Your task to perform on an android device: Open the web browser Image 0: 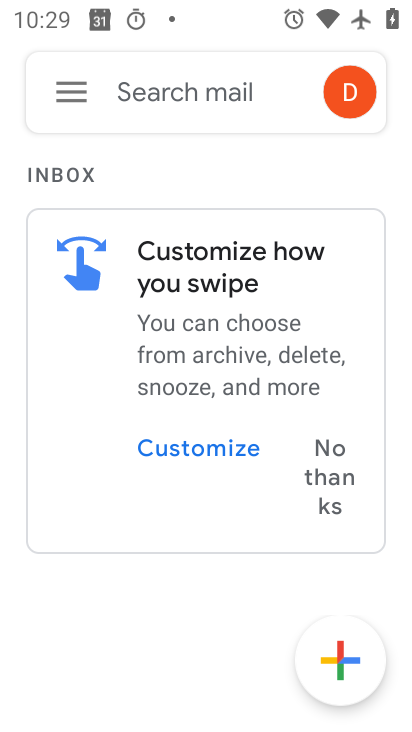
Step 0: press home button
Your task to perform on an android device: Open the web browser Image 1: 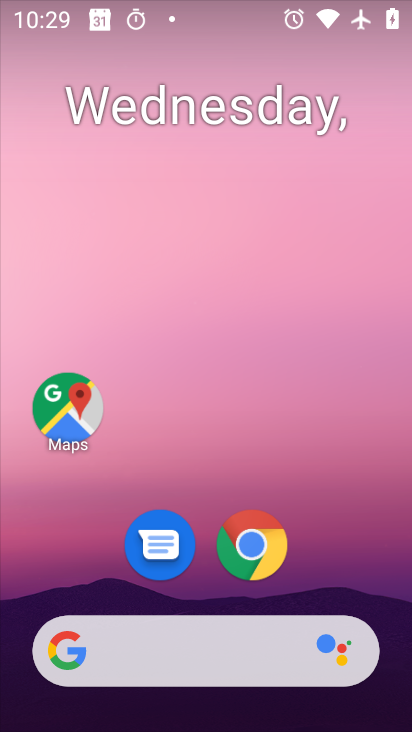
Step 1: click (248, 539)
Your task to perform on an android device: Open the web browser Image 2: 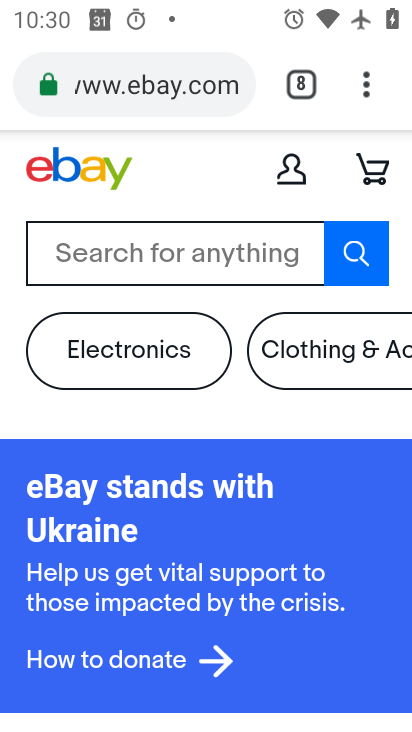
Step 2: task complete